Your task to perform on an android device: Is it going to rain today? Image 0: 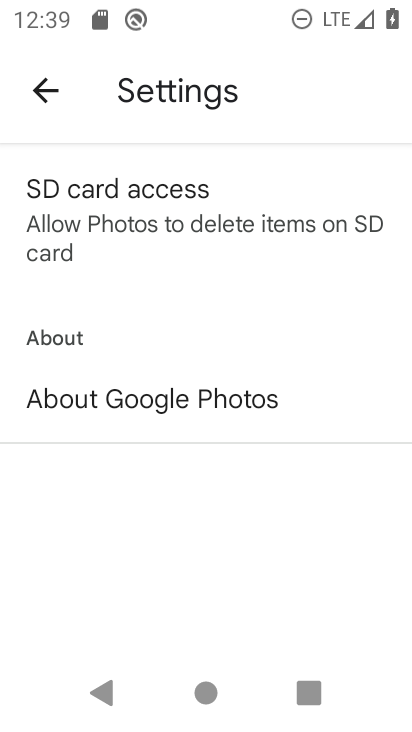
Step 0: press home button
Your task to perform on an android device: Is it going to rain today? Image 1: 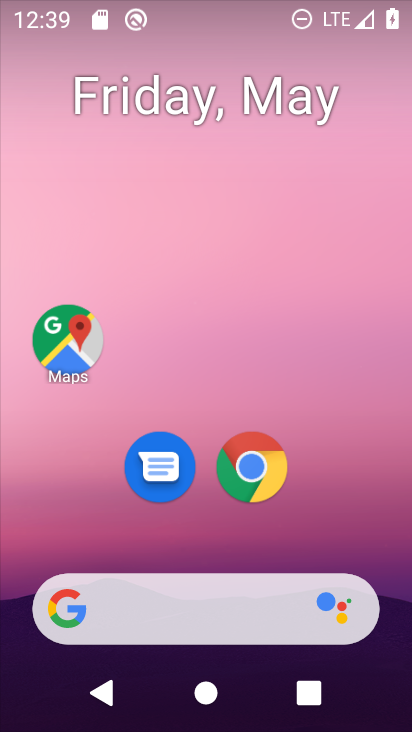
Step 1: drag from (78, 217) to (405, 225)
Your task to perform on an android device: Is it going to rain today? Image 2: 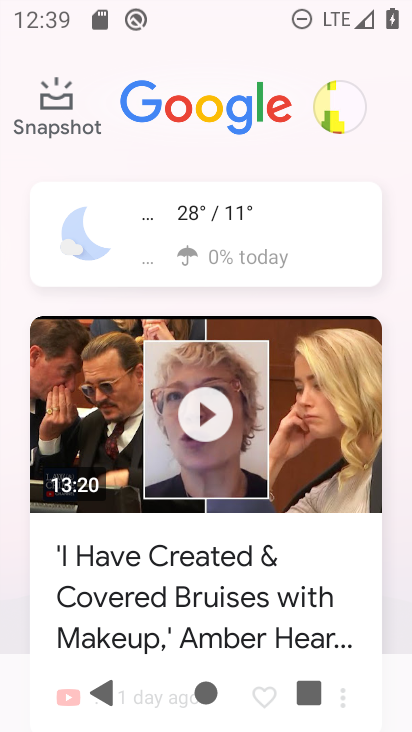
Step 2: click (229, 256)
Your task to perform on an android device: Is it going to rain today? Image 3: 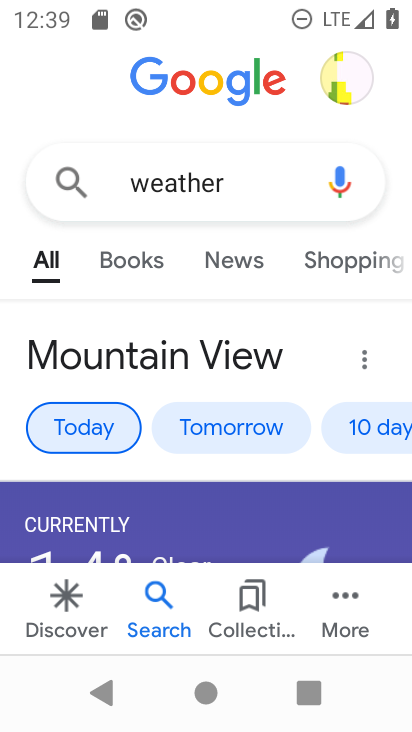
Step 3: task complete